Your task to perform on an android device: allow notifications from all sites in the chrome app Image 0: 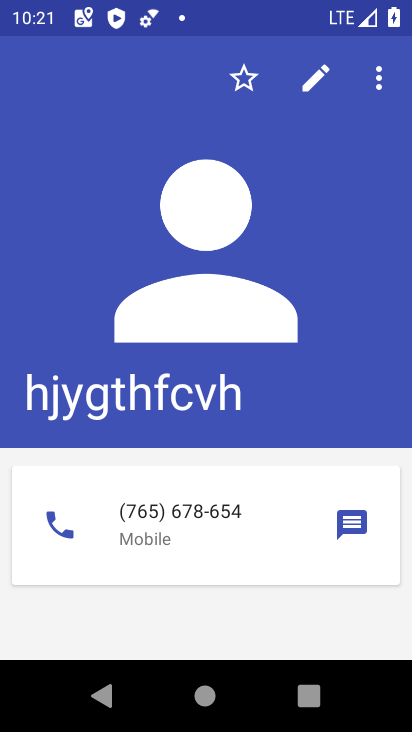
Step 0: press home button
Your task to perform on an android device: allow notifications from all sites in the chrome app Image 1: 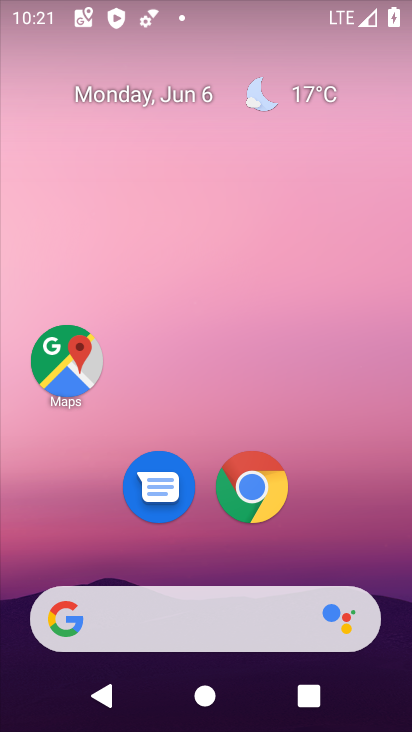
Step 1: drag from (351, 543) to (333, 95)
Your task to perform on an android device: allow notifications from all sites in the chrome app Image 2: 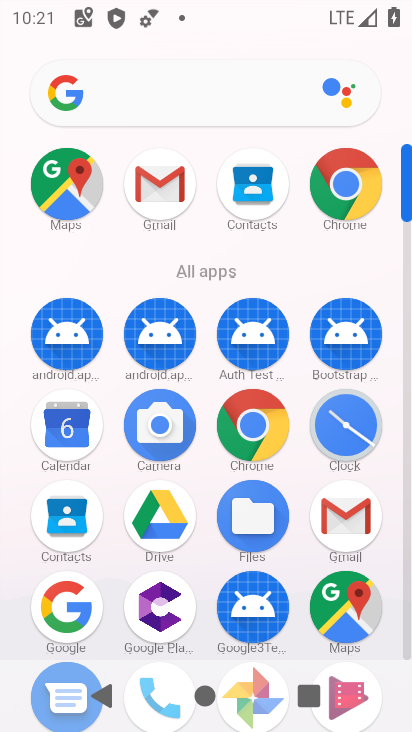
Step 2: click (343, 232)
Your task to perform on an android device: allow notifications from all sites in the chrome app Image 3: 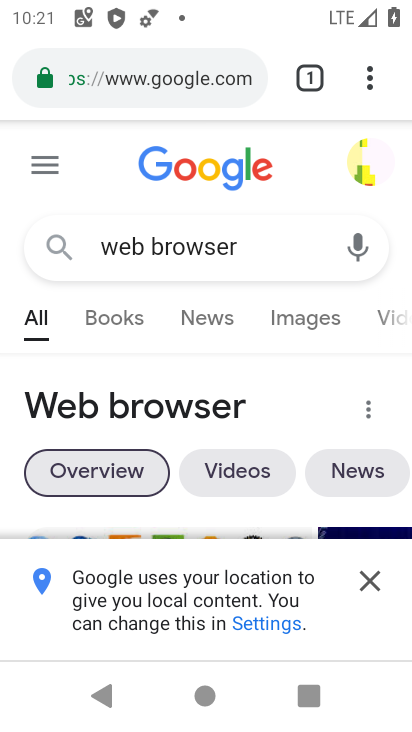
Step 3: drag from (358, 90) to (111, 548)
Your task to perform on an android device: allow notifications from all sites in the chrome app Image 4: 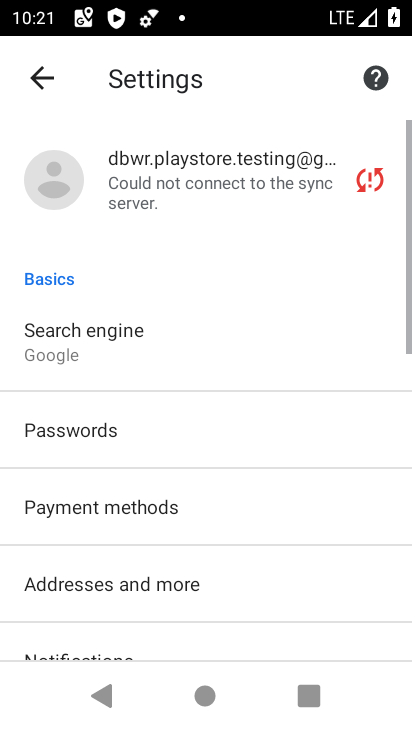
Step 4: drag from (164, 598) to (121, 172)
Your task to perform on an android device: allow notifications from all sites in the chrome app Image 5: 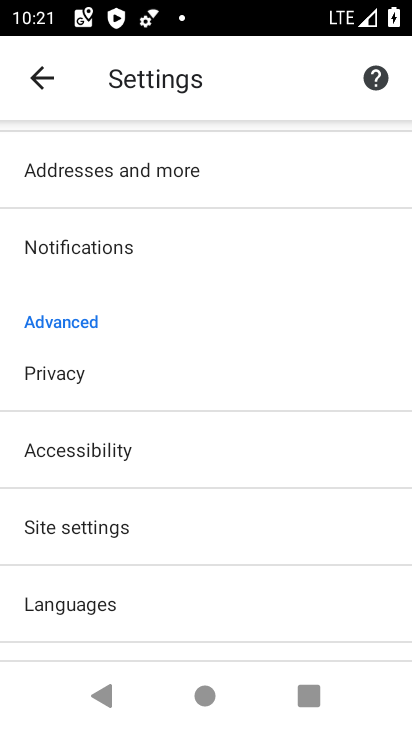
Step 5: click (94, 521)
Your task to perform on an android device: allow notifications from all sites in the chrome app Image 6: 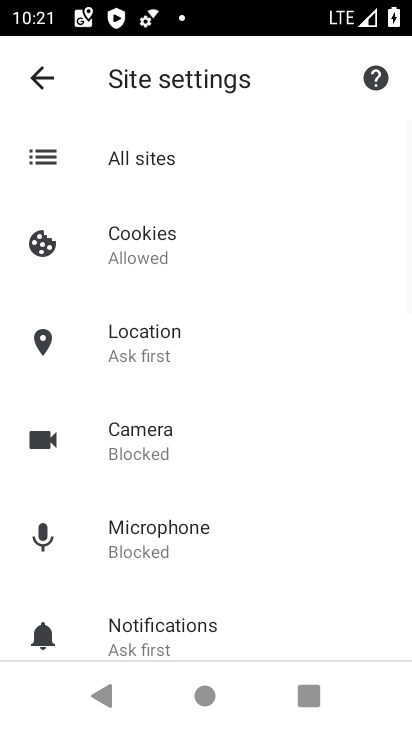
Step 6: click (188, 164)
Your task to perform on an android device: allow notifications from all sites in the chrome app Image 7: 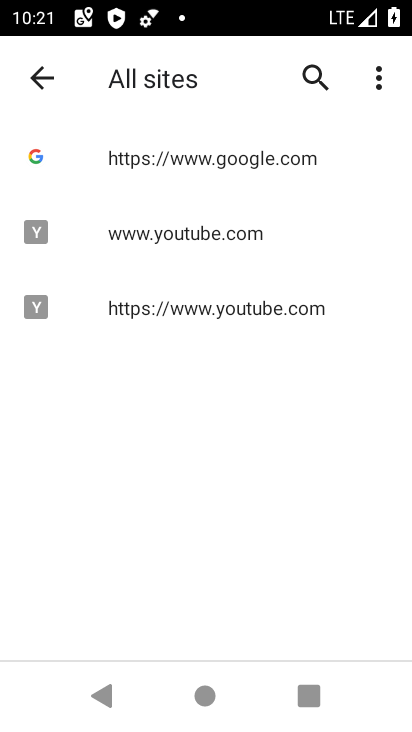
Step 7: click (211, 172)
Your task to perform on an android device: allow notifications from all sites in the chrome app Image 8: 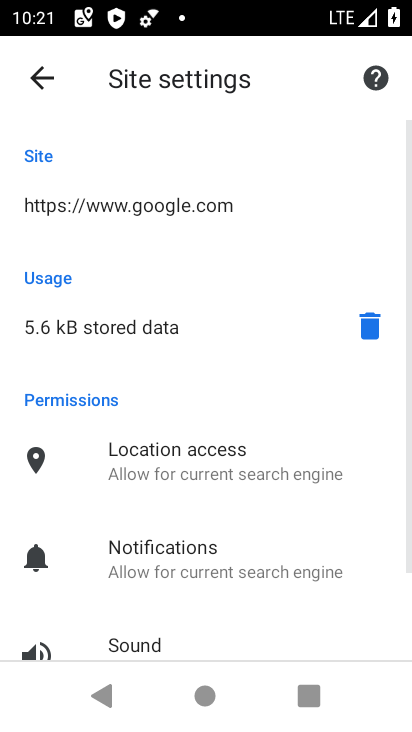
Step 8: click (122, 572)
Your task to perform on an android device: allow notifications from all sites in the chrome app Image 9: 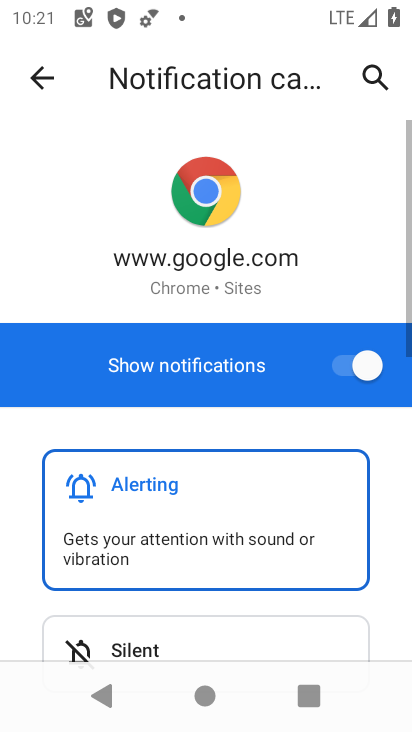
Step 9: task complete